Your task to perform on an android device: toggle airplane mode Image 0: 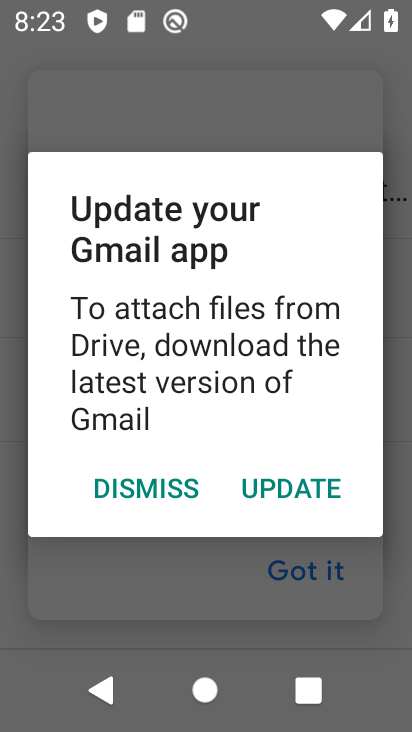
Step 0: press back button
Your task to perform on an android device: toggle airplane mode Image 1: 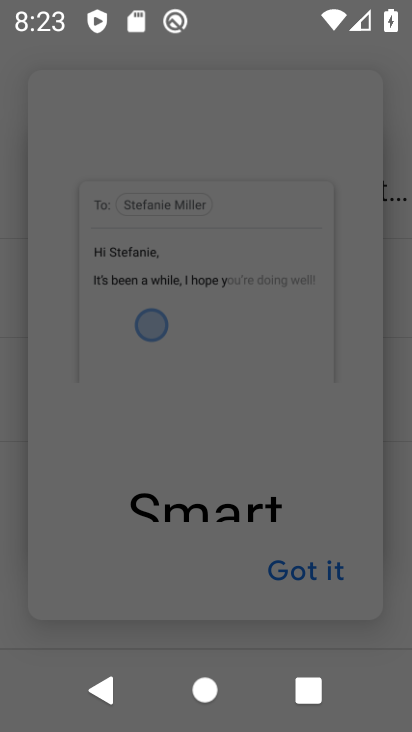
Step 1: drag from (323, 13) to (289, 519)
Your task to perform on an android device: toggle airplane mode Image 2: 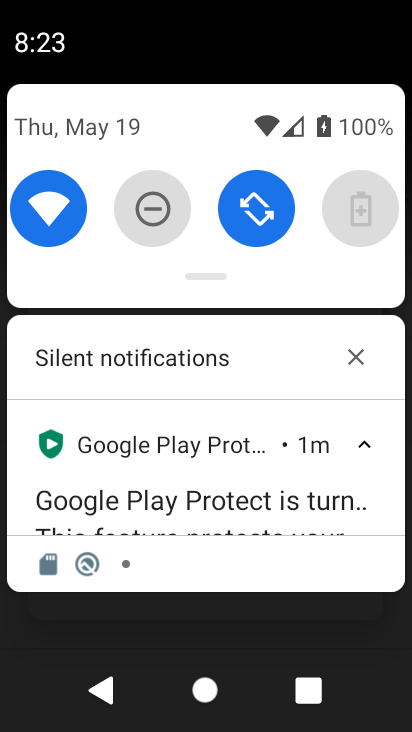
Step 2: drag from (215, 263) to (185, 545)
Your task to perform on an android device: toggle airplane mode Image 3: 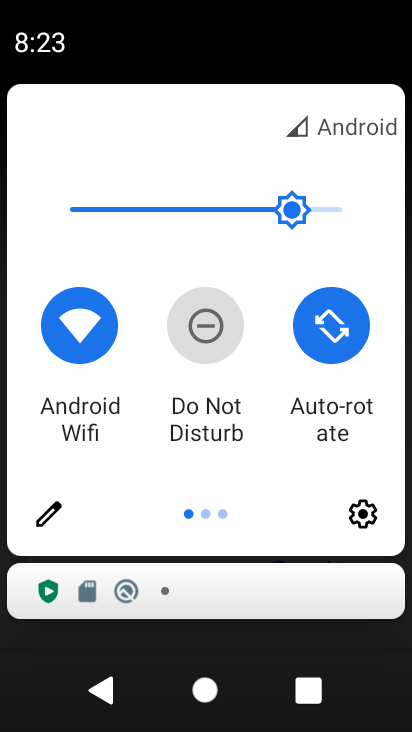
Step 3: drag from (345, 295) to (32, 296)
Your task to perform on an android device: toggle airplane mode Image 4: 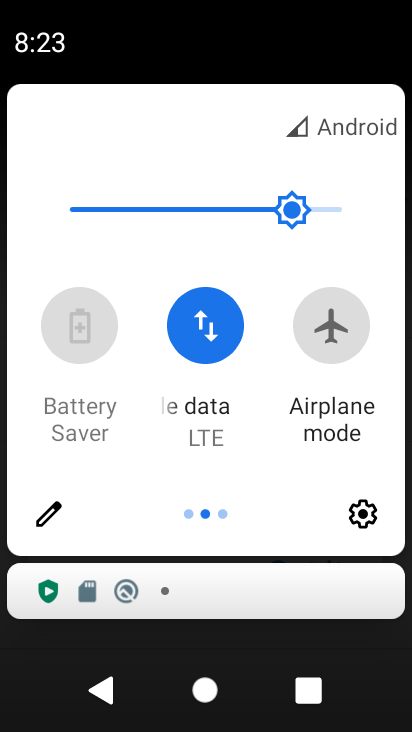
Step 4: click (325, 326)
Your task to perform on an android device: toggle airplane mode Image 5: 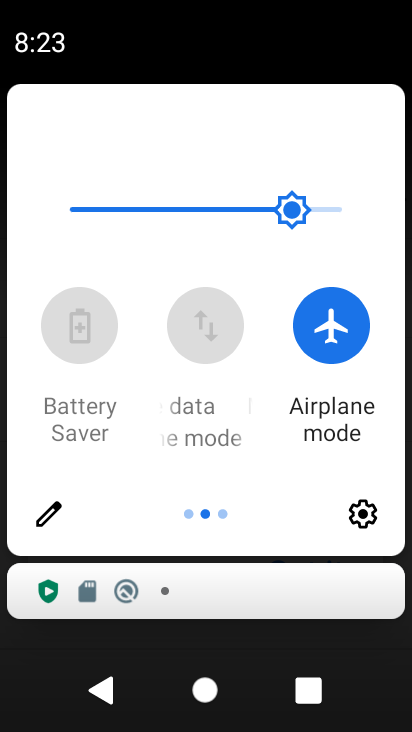
Step 5: task complete